Your task to perform on an android device: open app "Cash App" Image 0: 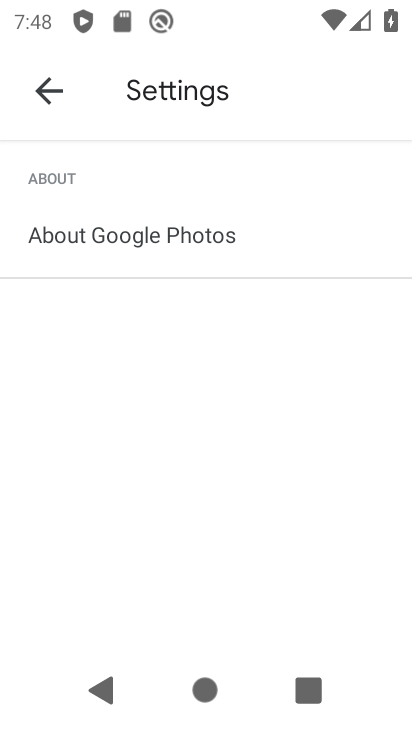
Step 0: press home button
Your task to perform on an android device: open app "Cash App" Image 1: 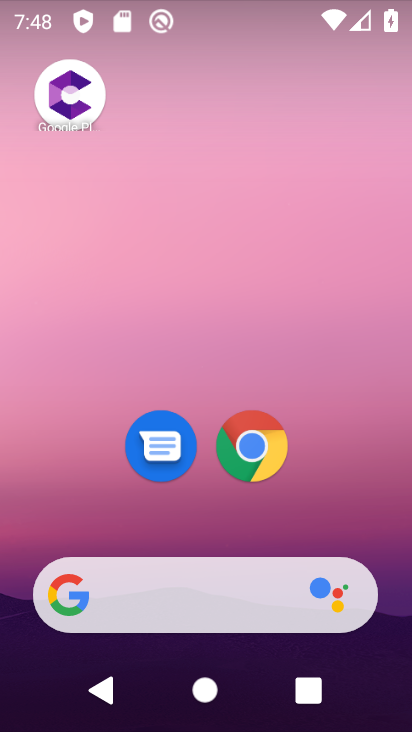
Step 1: drag from (205, 510) to (210, 92)
Your task to perform on an android device: open app "Cash App" Image 2: 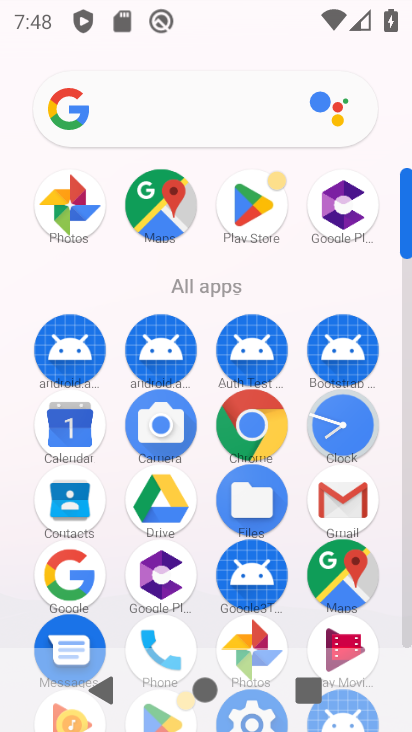
Step 2: click (261, 186)
Your task to perform on an android device: open app "Cash App" Image 3: 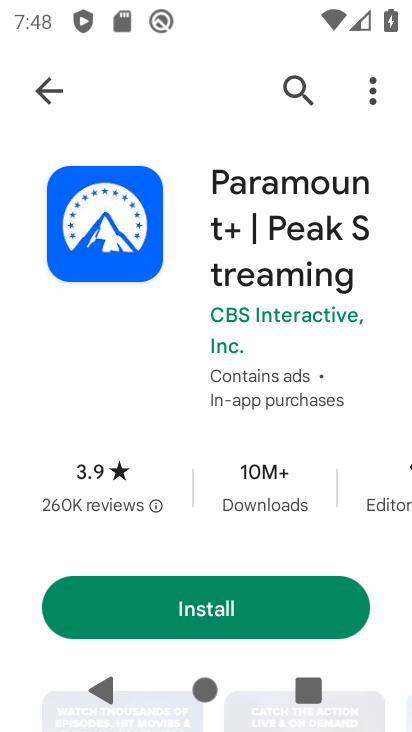
Step 3: click (290, 89)
Your task to perform on an android device: open app "Cash App" Image 4: 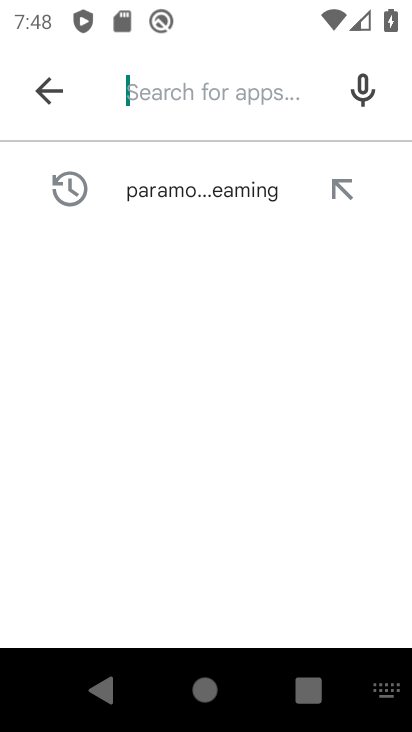
Step 4: type "Cash App"
Your task to perform on an android device: open app "Cash App" Image 5: 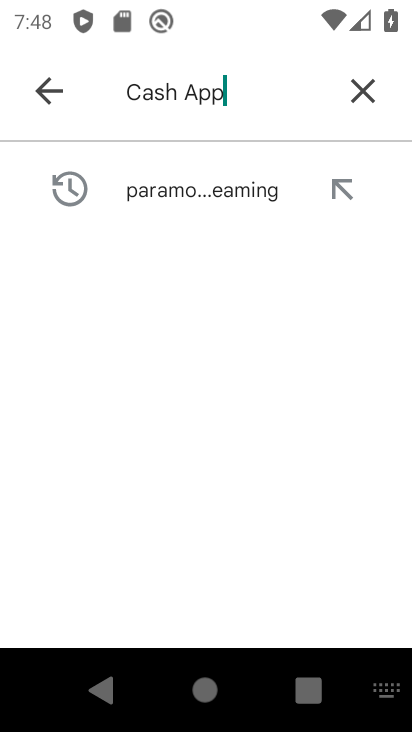
Step 5: type ""
Your task to perform on an android device: open app "Cash App" Image 6: 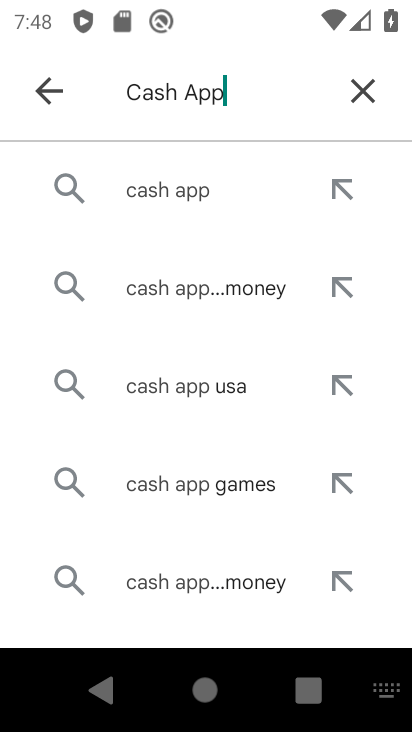
Step 6: click (203, 206)
Your task to perform on an android device: open app "Cash App" Image 7: 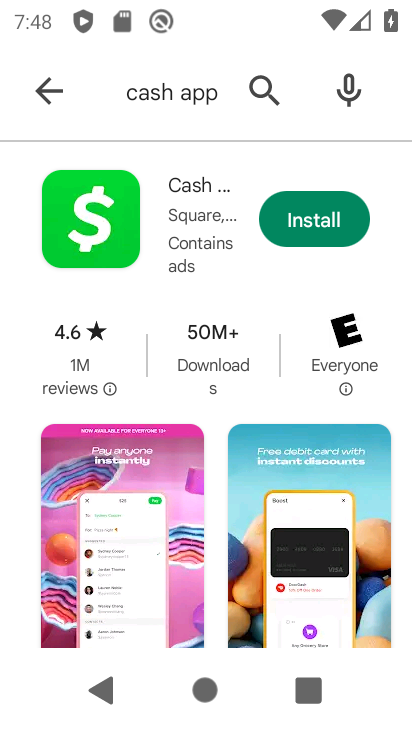
Step 7: task complete